Your task to perform on an android device: Check the weather Image 0: 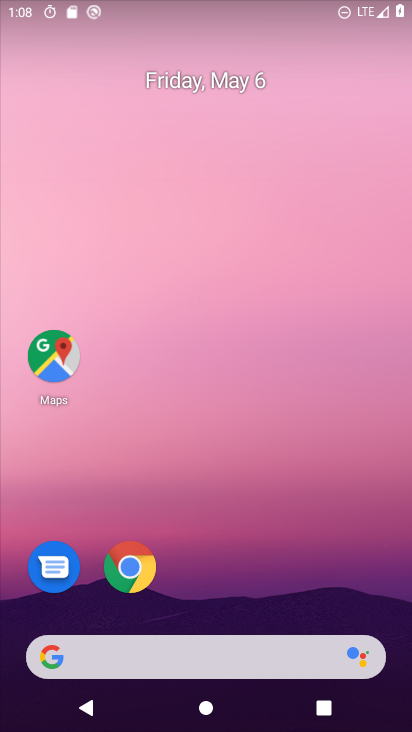
Step 0: click (109, 657)
Your task to perform on an android device: Check the weather Image 1: 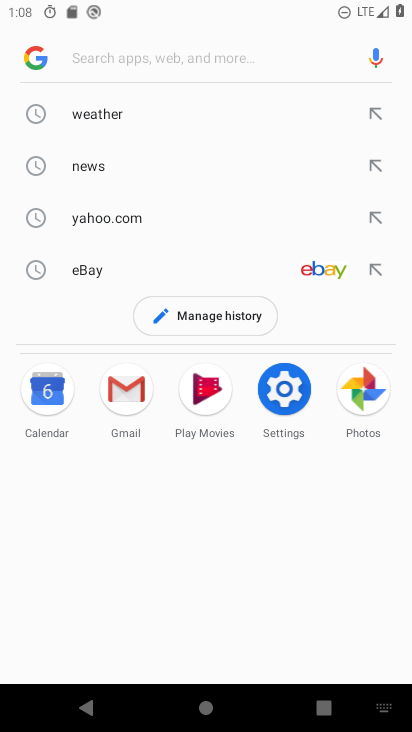
Step 1: click (96, 123)
Your task to perform on an android device: Check the weather Image 2: 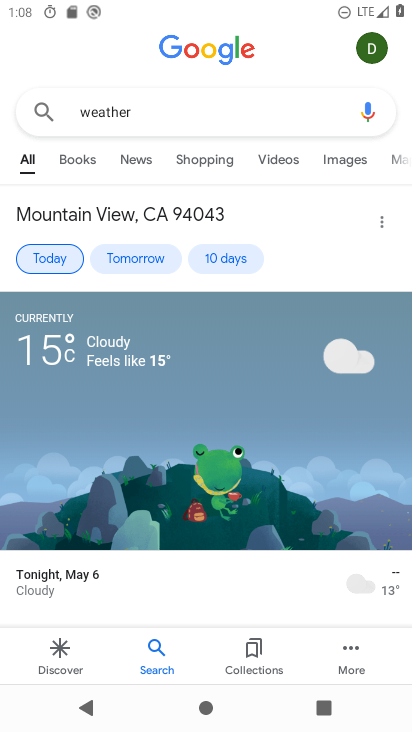
Step 2: task complete